Your task to perform on an android device: choose inbox layout in the gmail app Image 0: 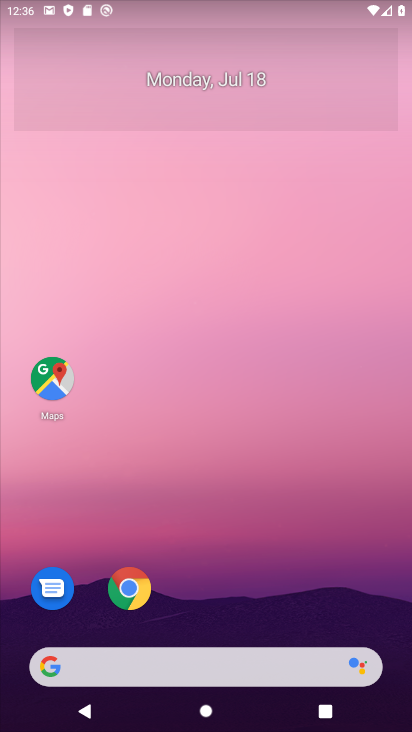
Step 0: drag from (248, 486) to (317, 73)
Your task to perform on an android device: choose inbox layout in the gmail app Image 1: 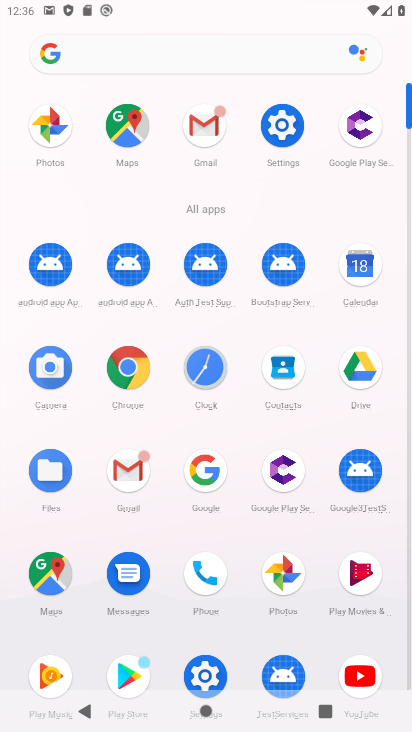
Step 1: click (131, 473)
Your task to perform on an android device: choose inbox layout in the gmail app Image 2: 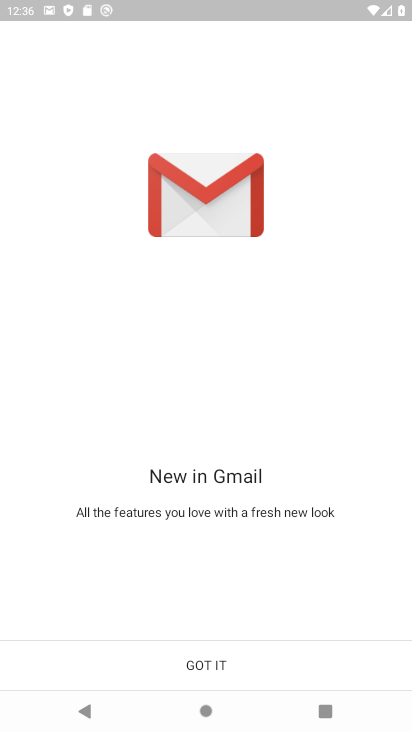
Step 2: click (207, 664)
Your task to perform on an android device: choose inbox layout in the gmail app Image 3: 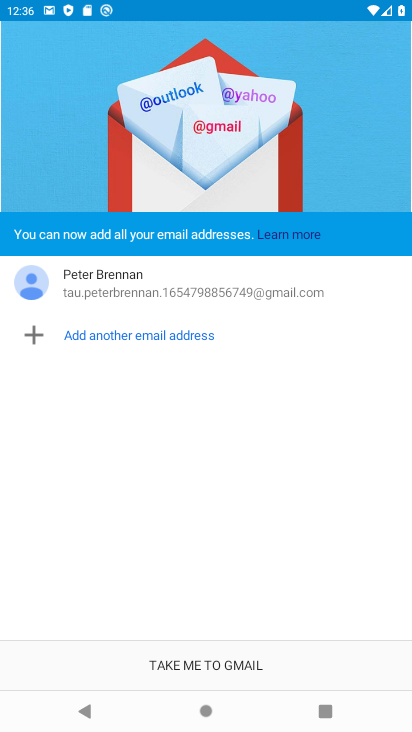
Step 3: click (194, 664)
Your task to perform on an android device: choose inbox layout in the gmail app Image 4: 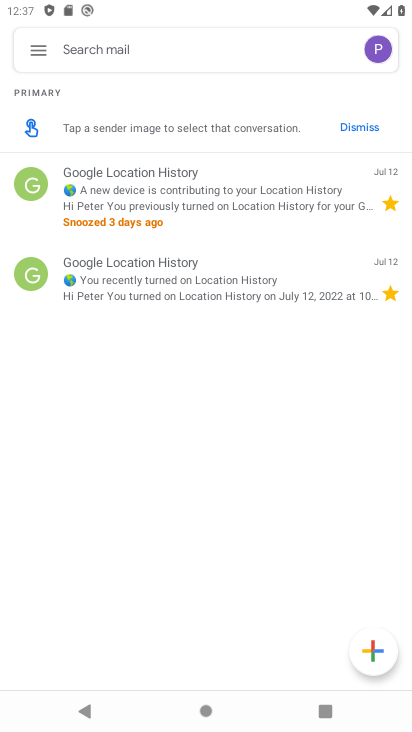
Step 4: click (40, 55)
Your task to perform on an android device: choose inbox layout in the gmail app Image 5: 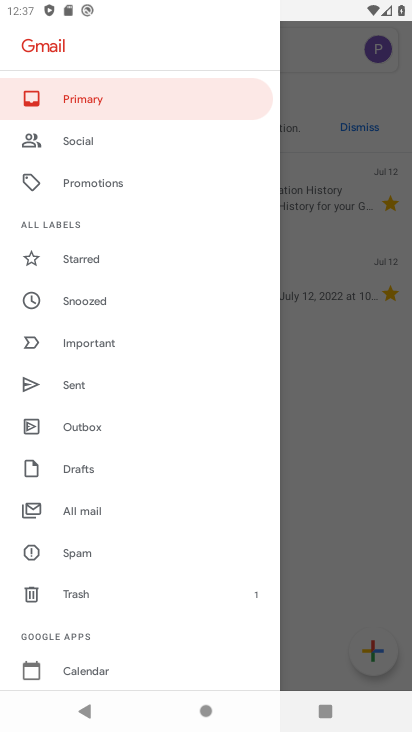
Step 5: click (347, 369)
Your task to perform on an android device: choose inbox layout in the gmail app Image 6: 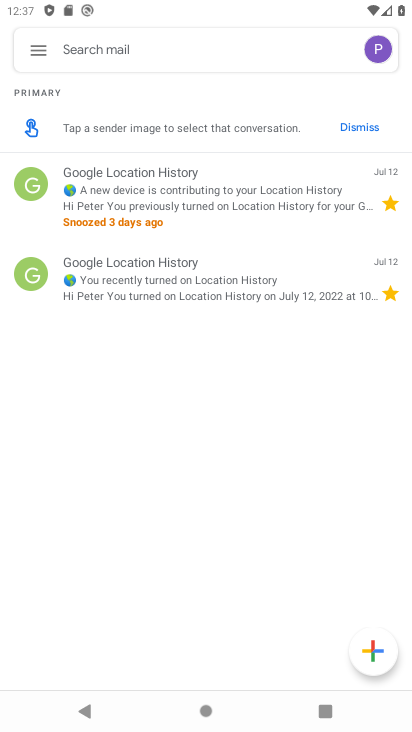
Step 6: task complete